Your task to perform on an android device: install app "Adobe Acrobat Reader" Image 0: 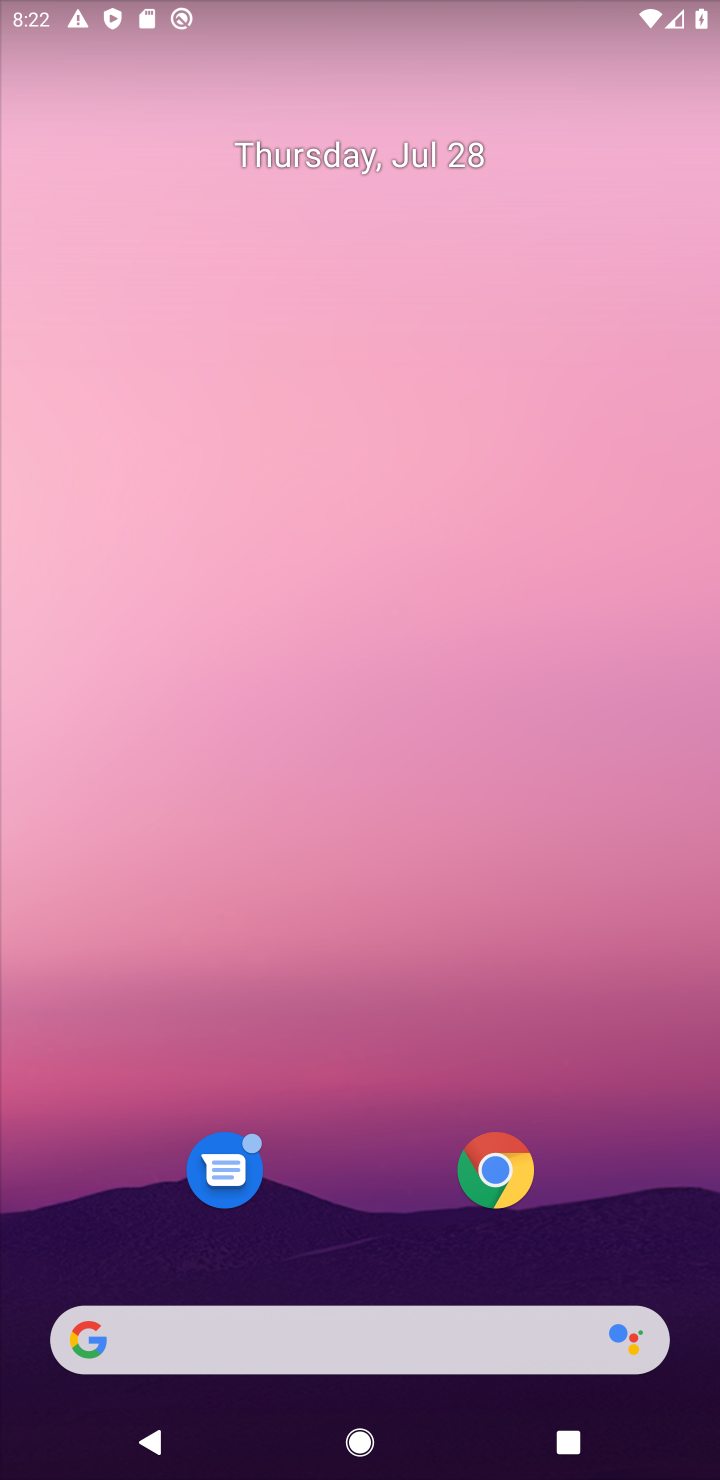
Step 0: drag from (583, 1366) to (695, 71)
Your task to perform on an android device: install app "Adobe Acrobat Reader" Image 1: 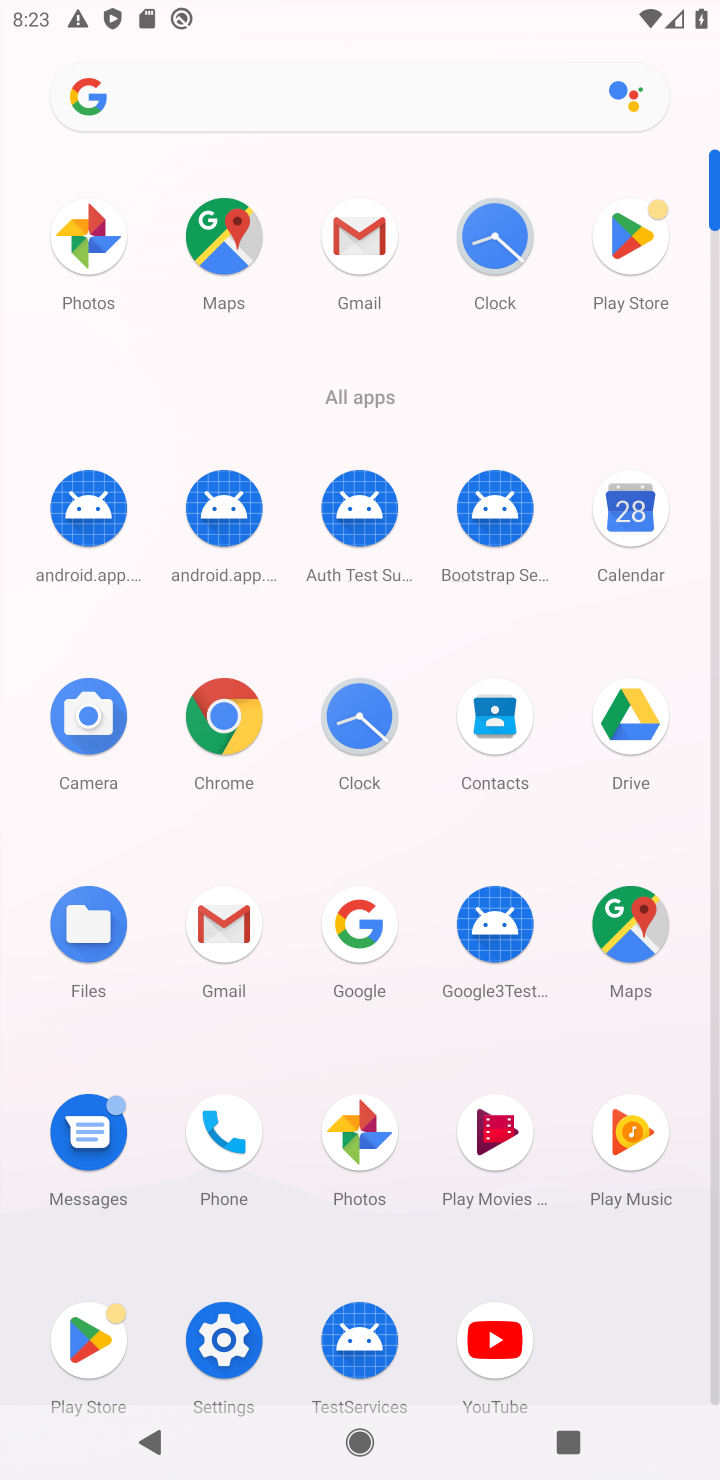
Step 1: click (114, 1328)
Your task to perform on an android device: install app "Adobe Acrobat Reader" Image 2: 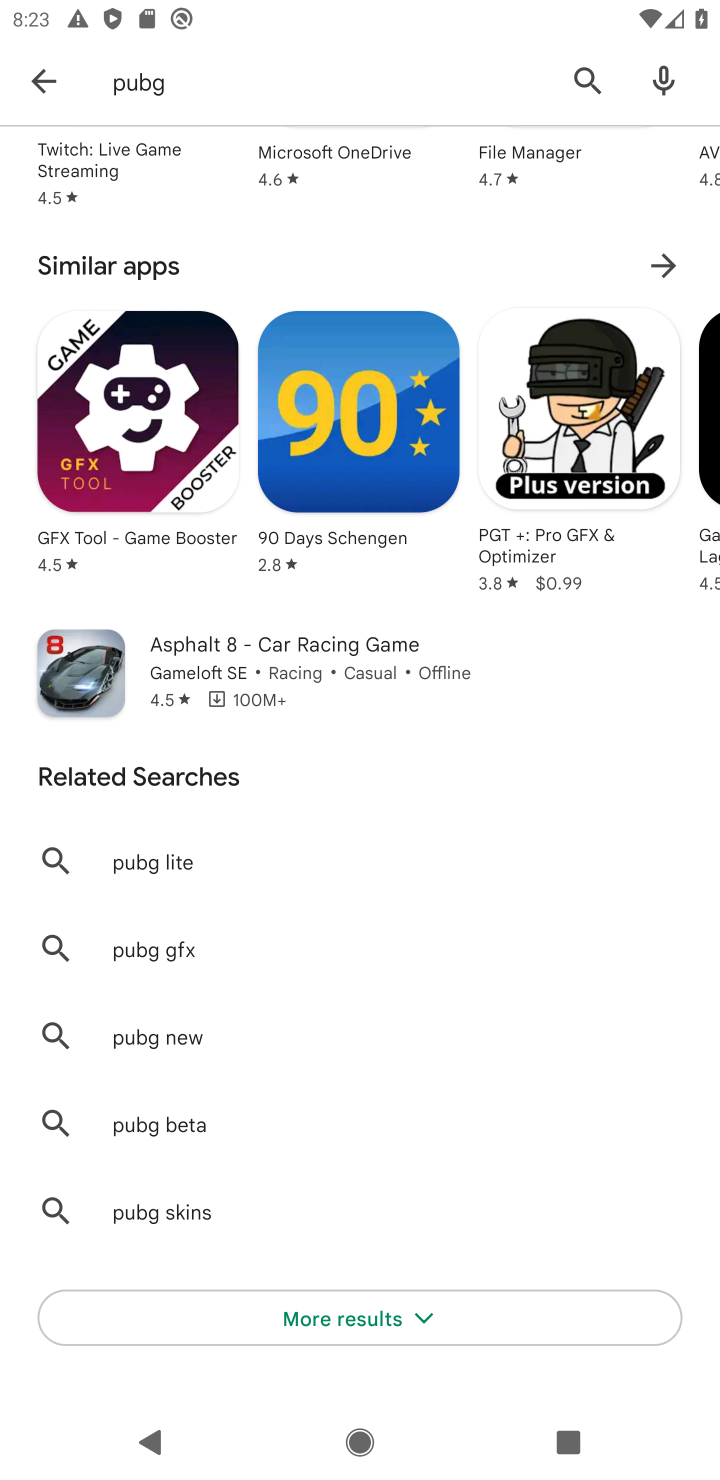
Step 2: click (297, 99)
Your task to perform on an android device: install app "Adobe Acrobat Reader" Image 3: 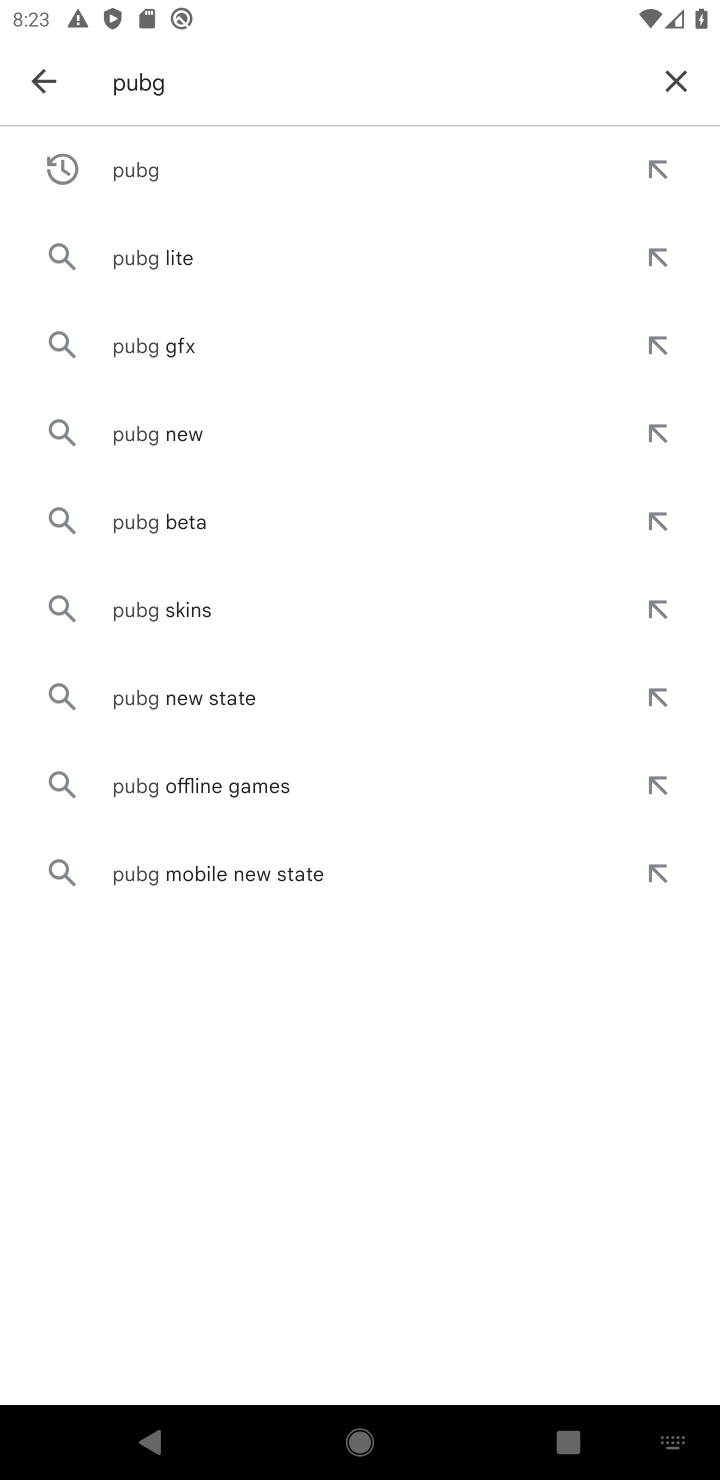
Step 3: click (679, 81)
Your task to perform on an android device: install app "Adobe Acrobat Reader" Image 4: 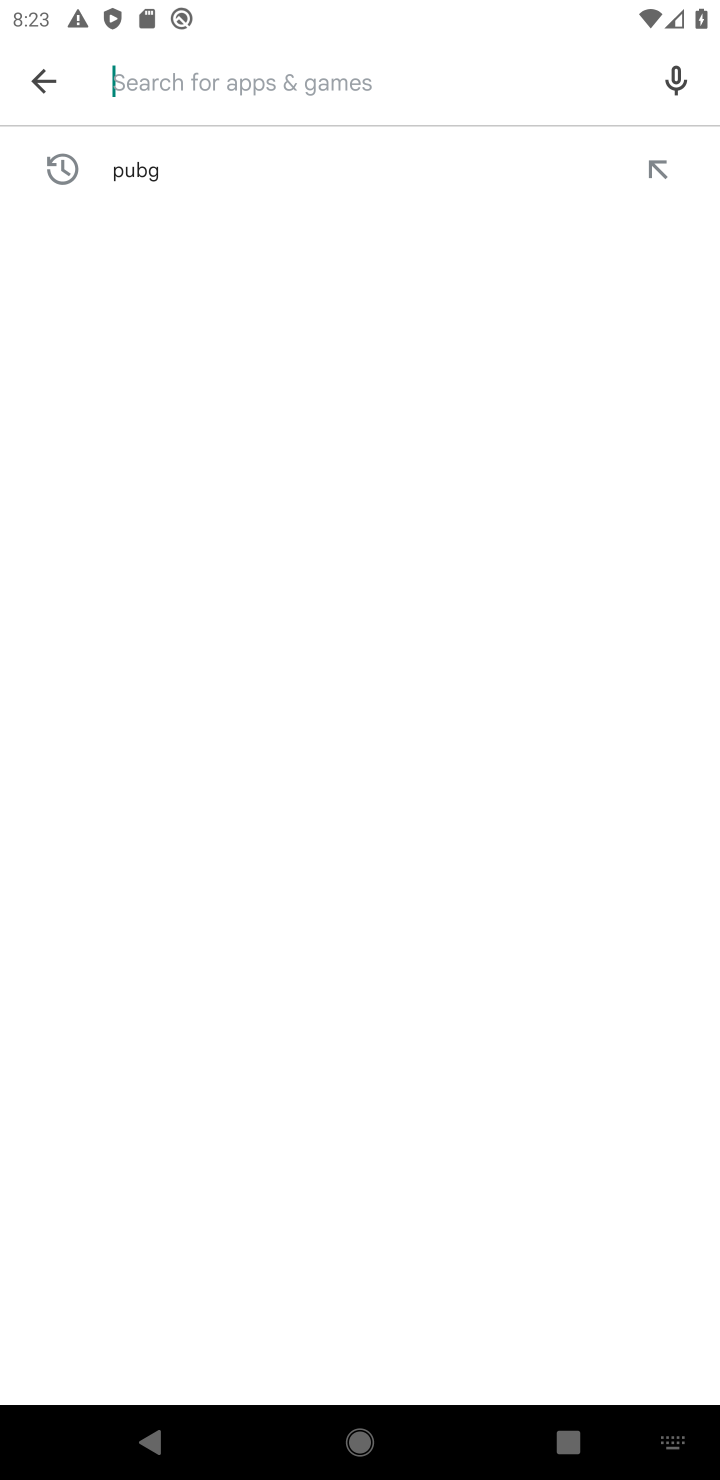
Step 4: click (513, 93)
Your task to perform on an android device: install app "Adobe Acrobat Reader" Image 5: 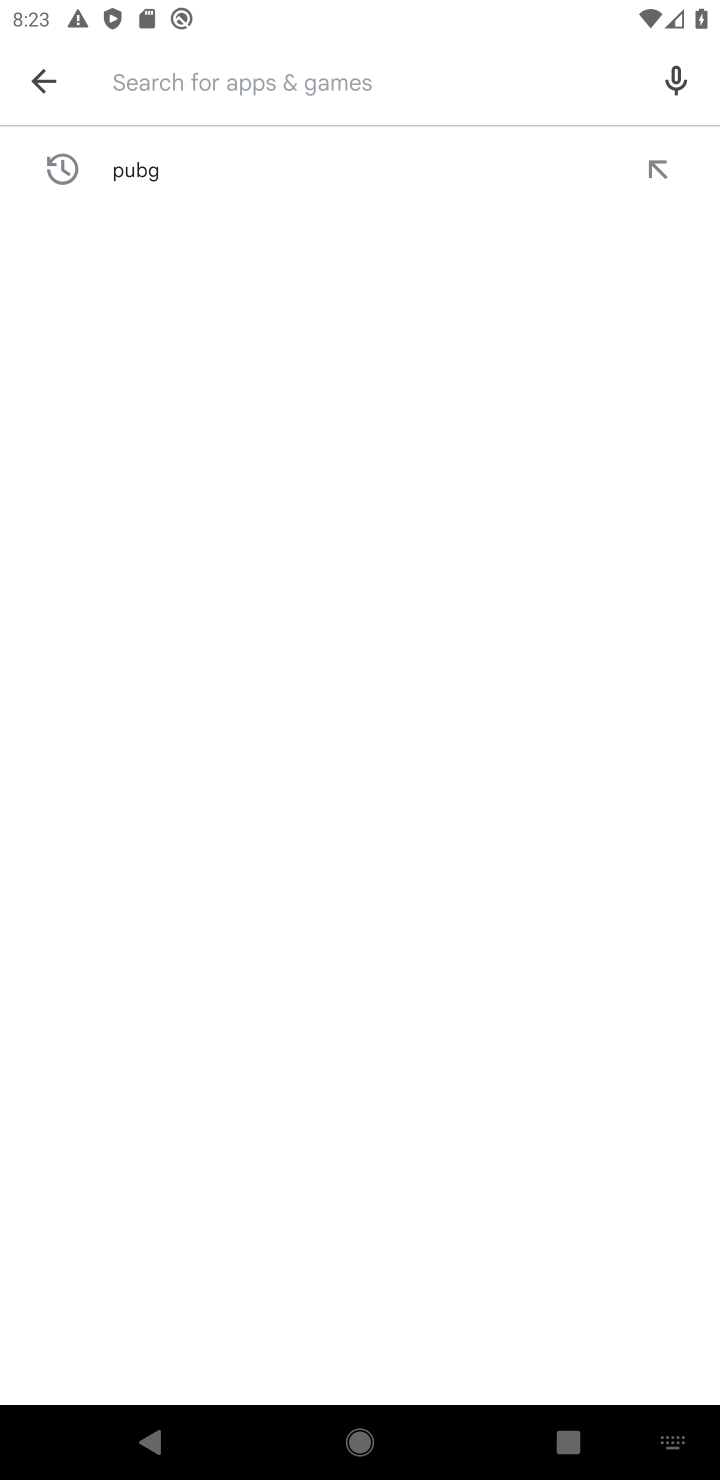
Step 5: type "adobe acrobat"
Your task to perform on an android device: install app "Adobe Acrobat Reader" Image 6: 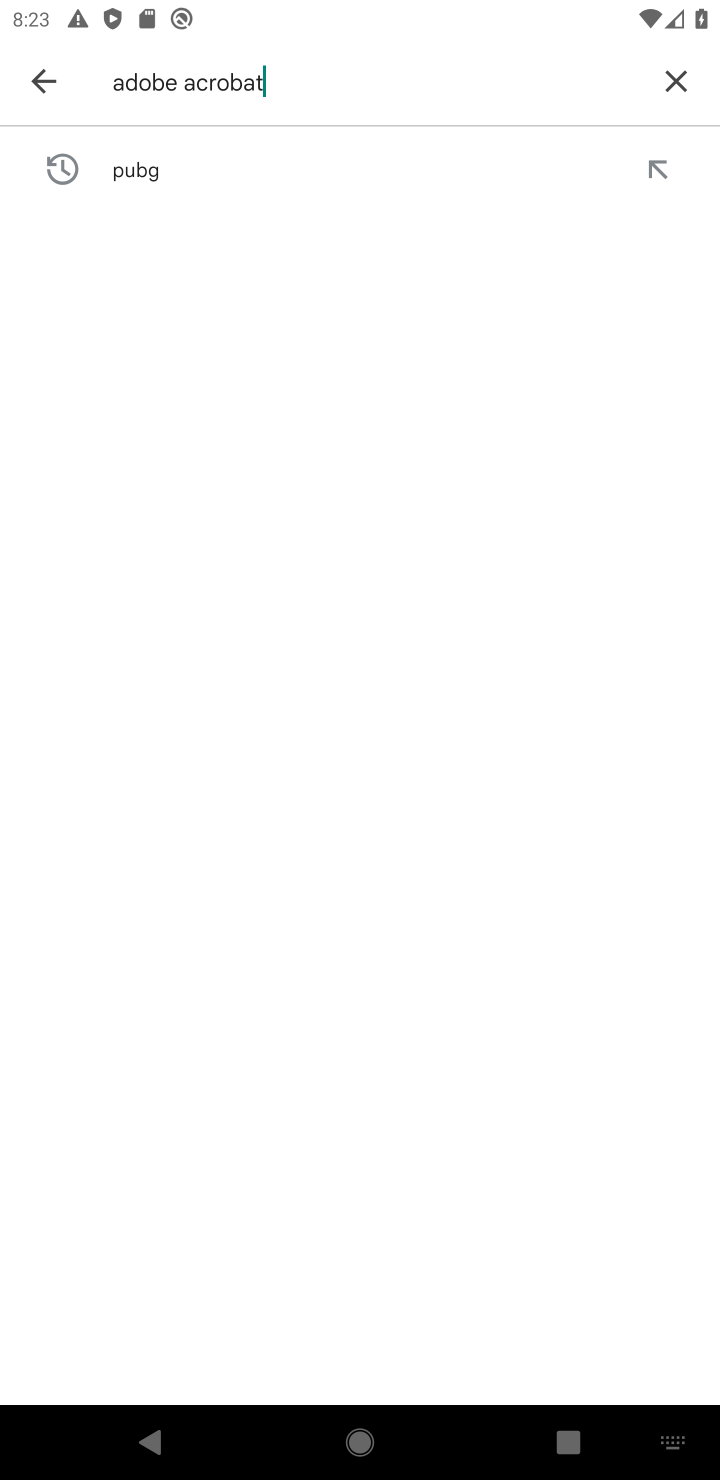
Step 6: type ""
Your task to perform on an android device: install app "Adobe Acrobat Reader" Image 7: 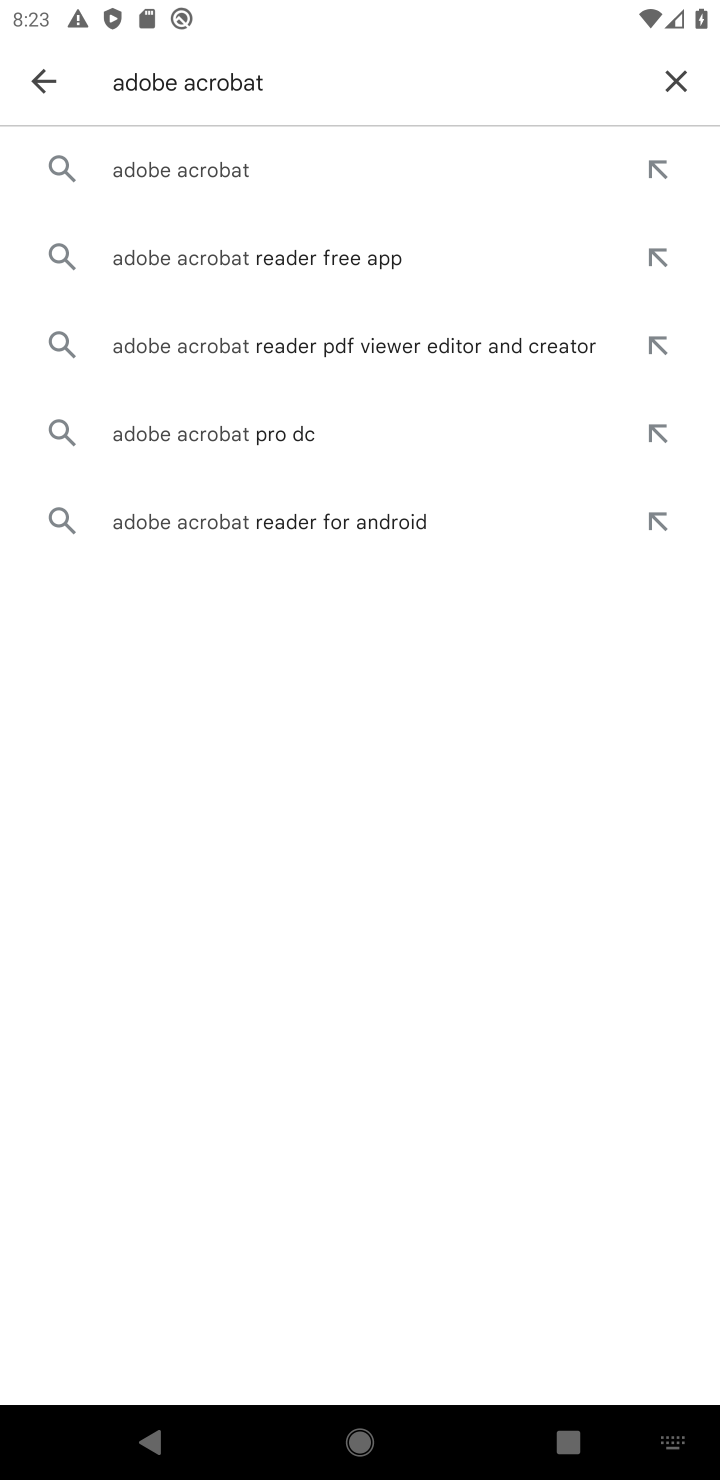
Step 7: click (522, 152)
Your task to perform on an android device: install app "Adobe Acrobat Reader" Image 8: 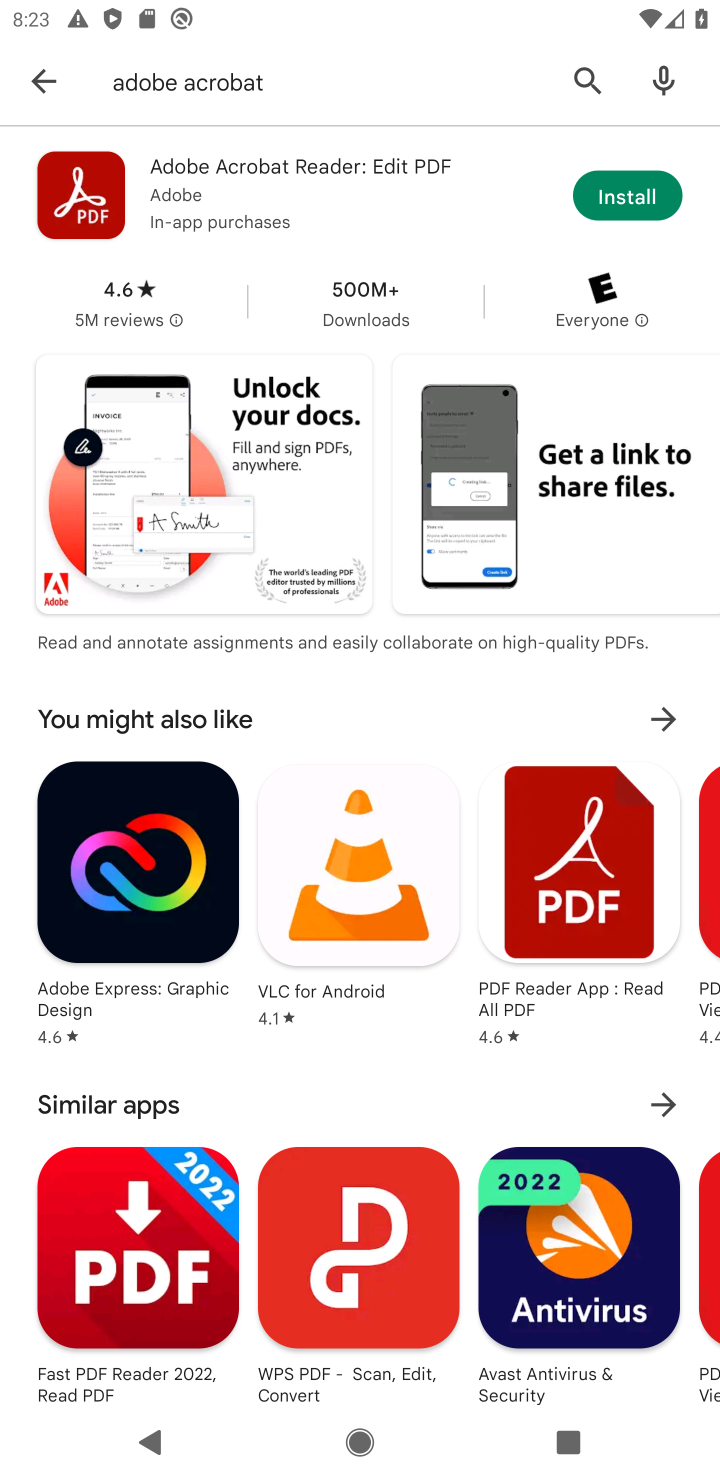
Step 8: click (644, 192)
Your task to perform on an android device: install app "Adobe Acrobat Reader" Image 9: 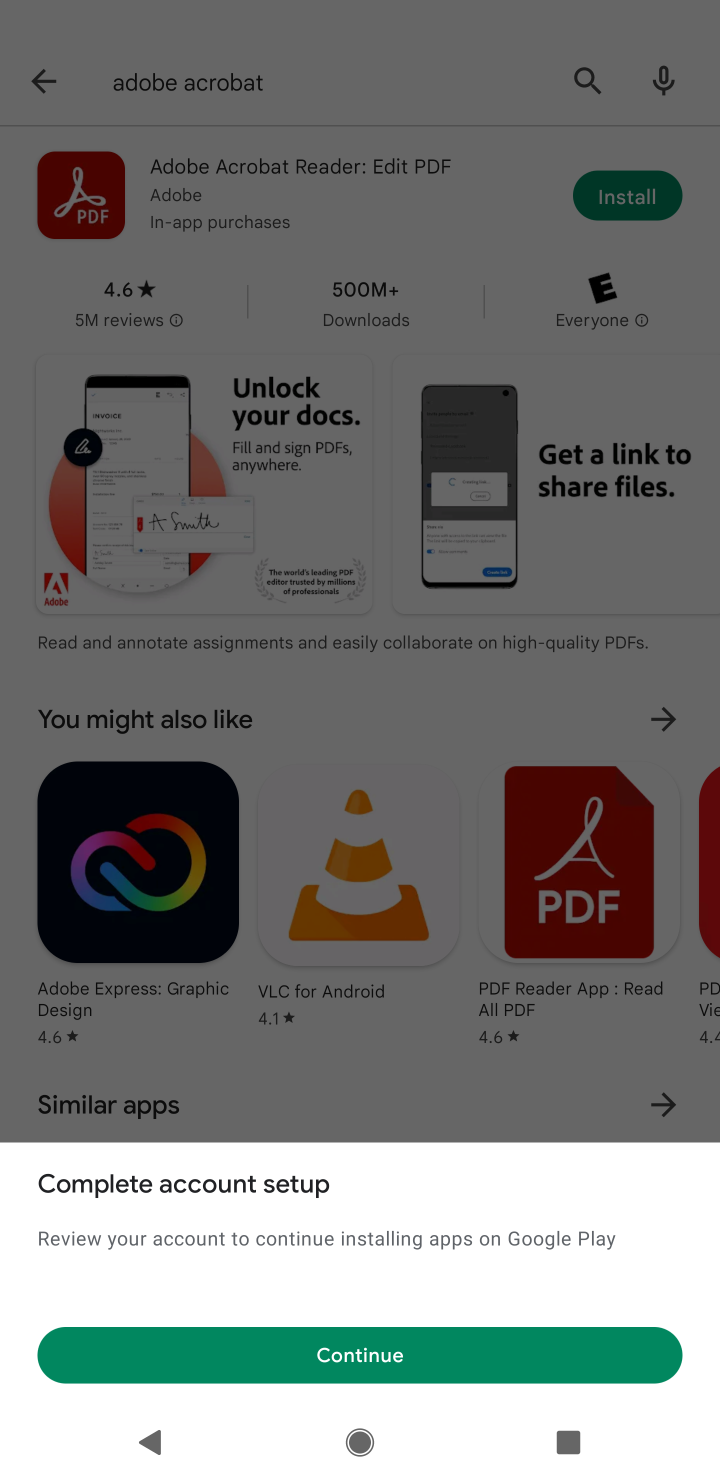
Step 9: click (521, 1361)
Your task to perform on an android device: install app "Adobe Acrobat Reader" Image 10: 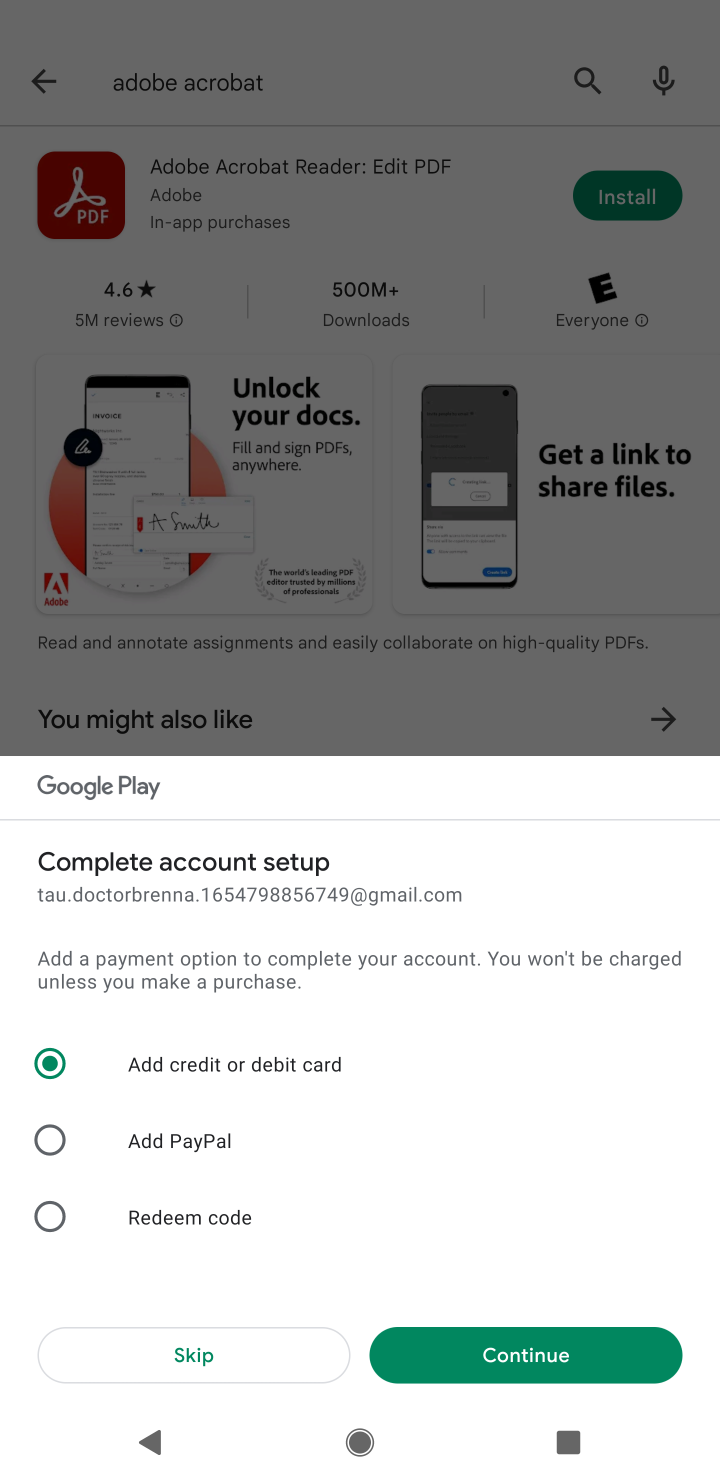
Step 10: click (243, 1340)
Your task to perform on an android device: install app "Adobe Acrobat Reader" Image 11: 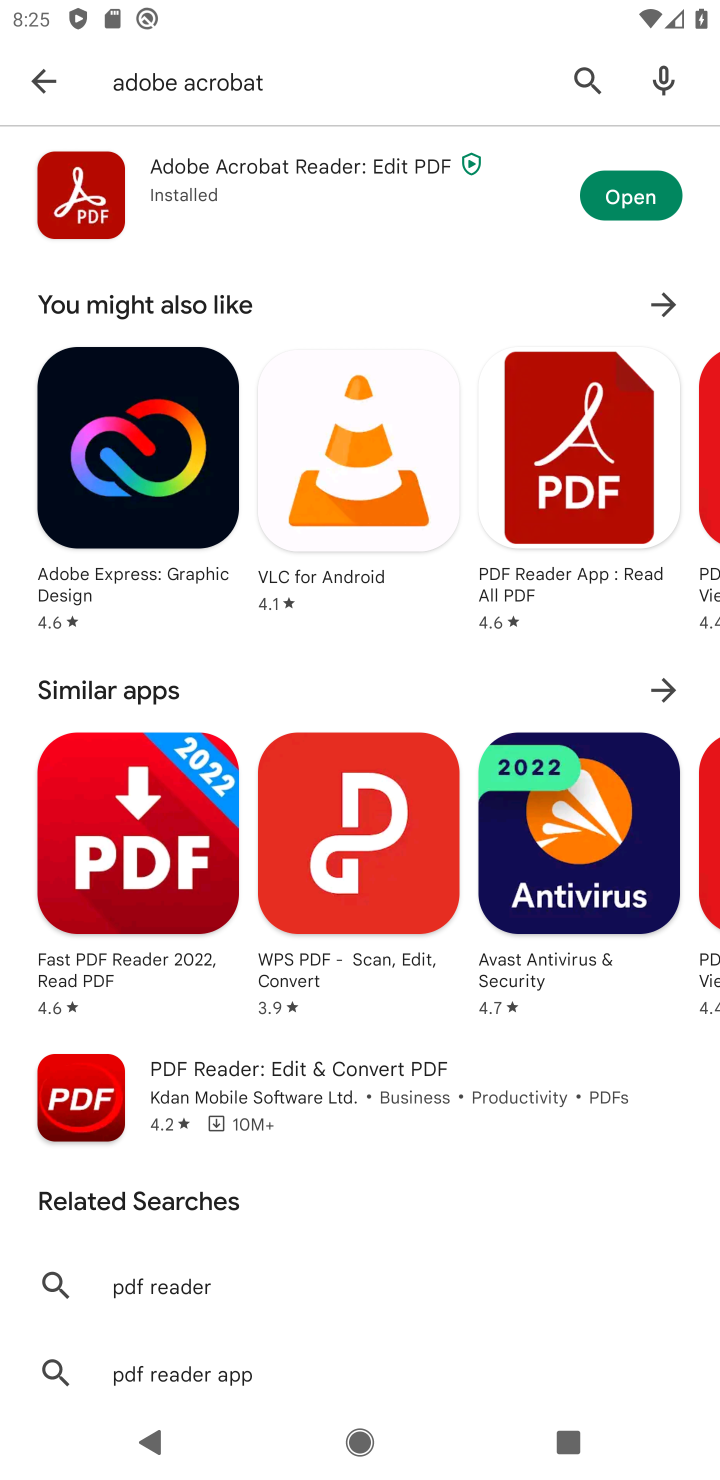
Step 11: click (665, 192)
Your task to perform on an android device: install app "Adobe Acrobat Reader" Image 12: 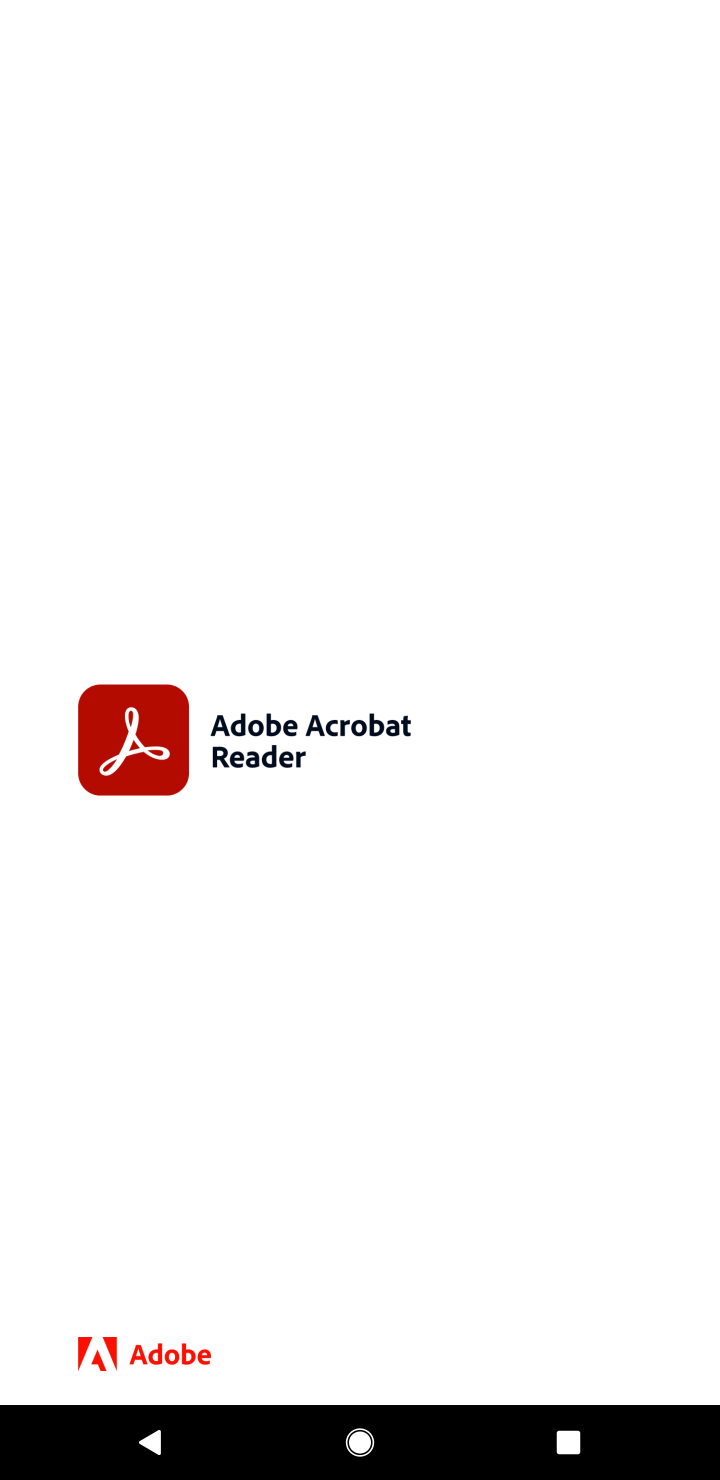
Step 12: task complete